Your task to perform on an android device: Open Yahoo.com Image 0: 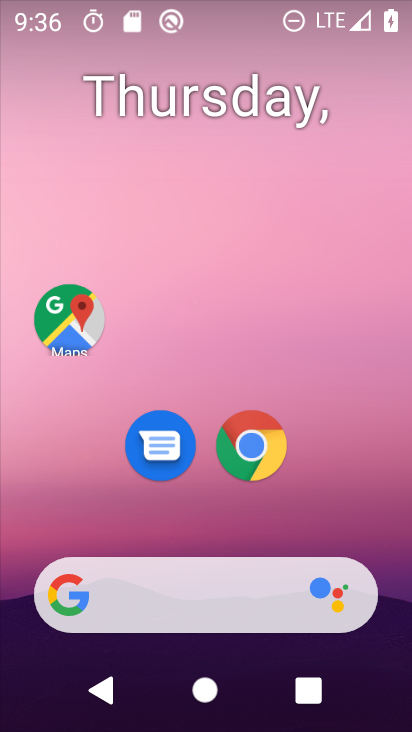
Step 0: drag from (208, 552) to (221, 289)
Your task to perform on an android device: Open Yahoo.com Image 1: 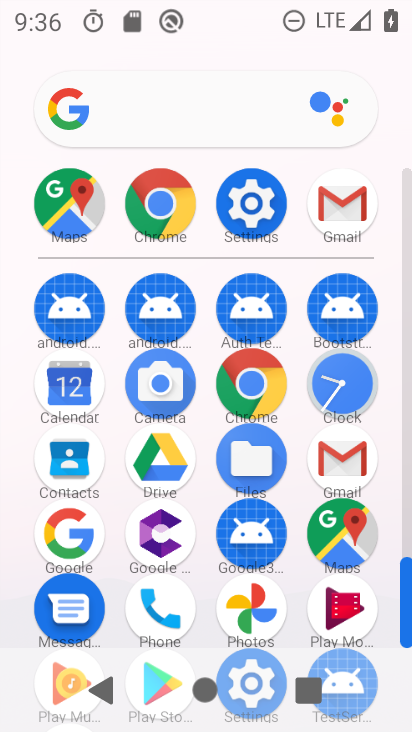
Step 1: click (160, 109)
Your task to perform on an android device: Open Yahoo.com Image 2: 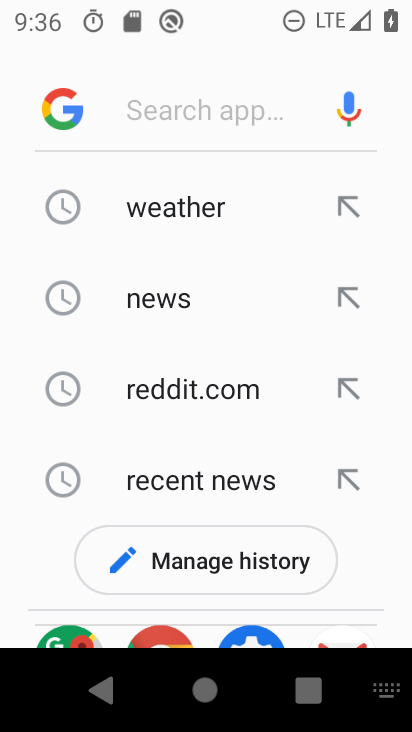
Step 2: type "yahoo"
Your task to perform on an android device: Open Yahoo.com Image 3: 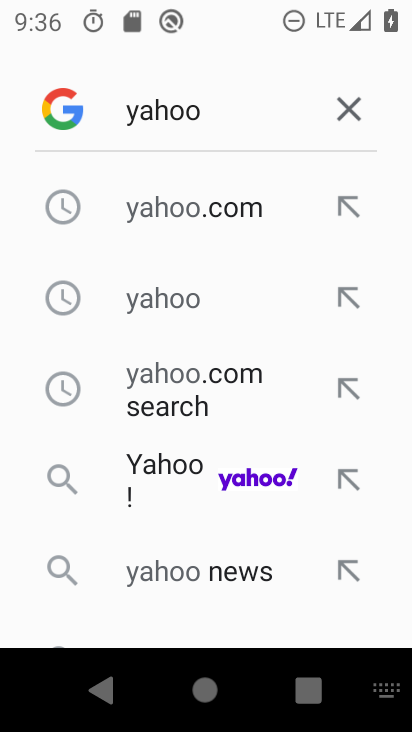
Step 3: click (150, 209)
Your task to perform on an android device: Open Yahoo.com Image 4: 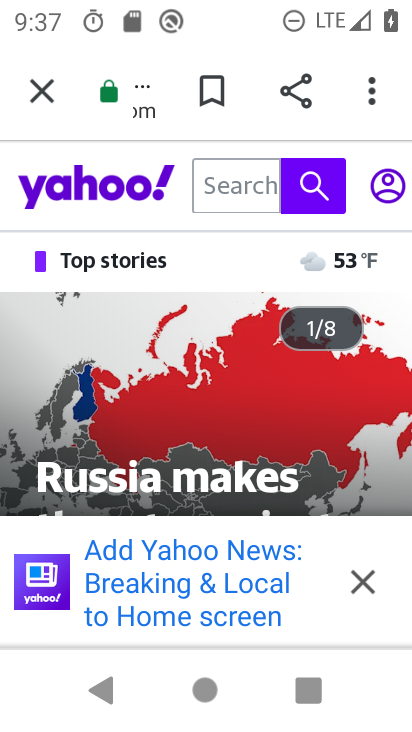
Step 4: task complete